Your task to perform on an android device: Show me productivity apps on the Play Store Image 0: 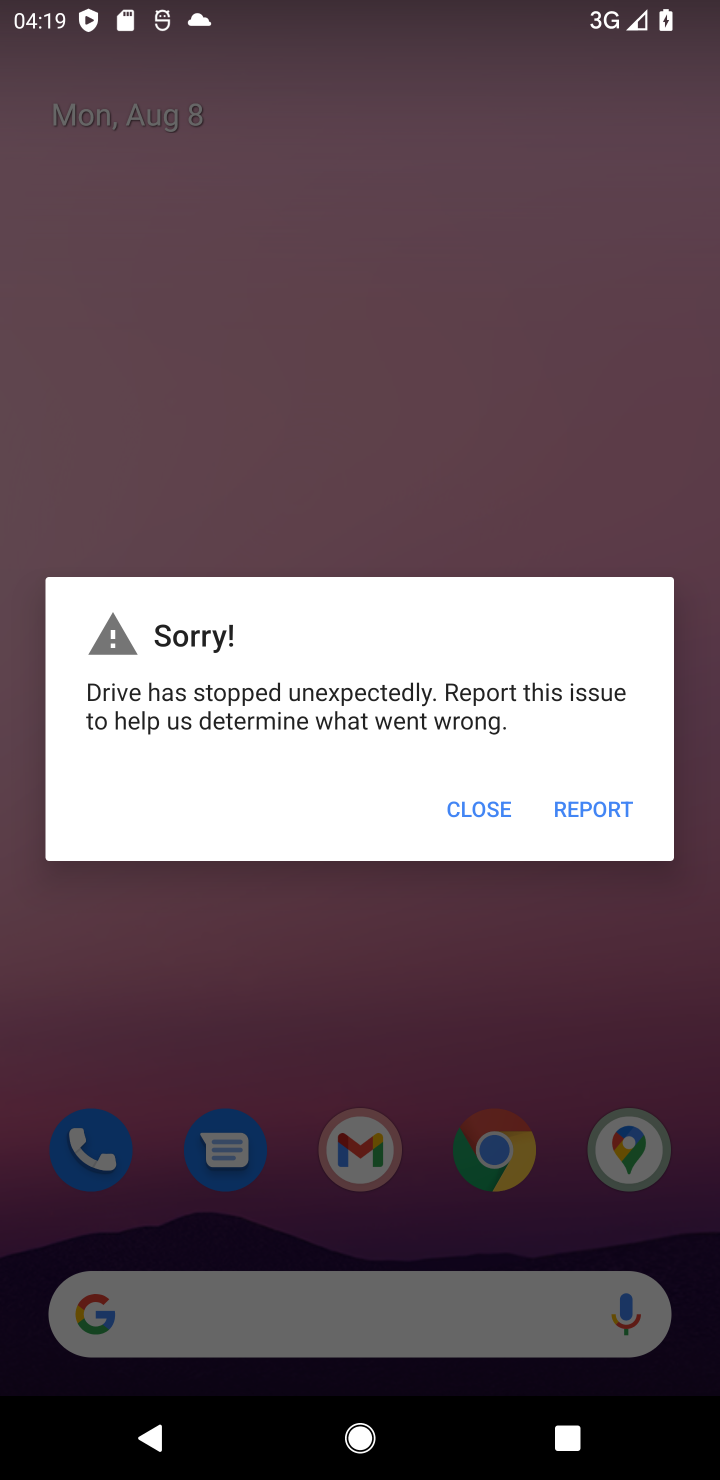
Step 0: press home button
Your task to perform on an android device: Show me productivity apps on the Play Store Image 1: 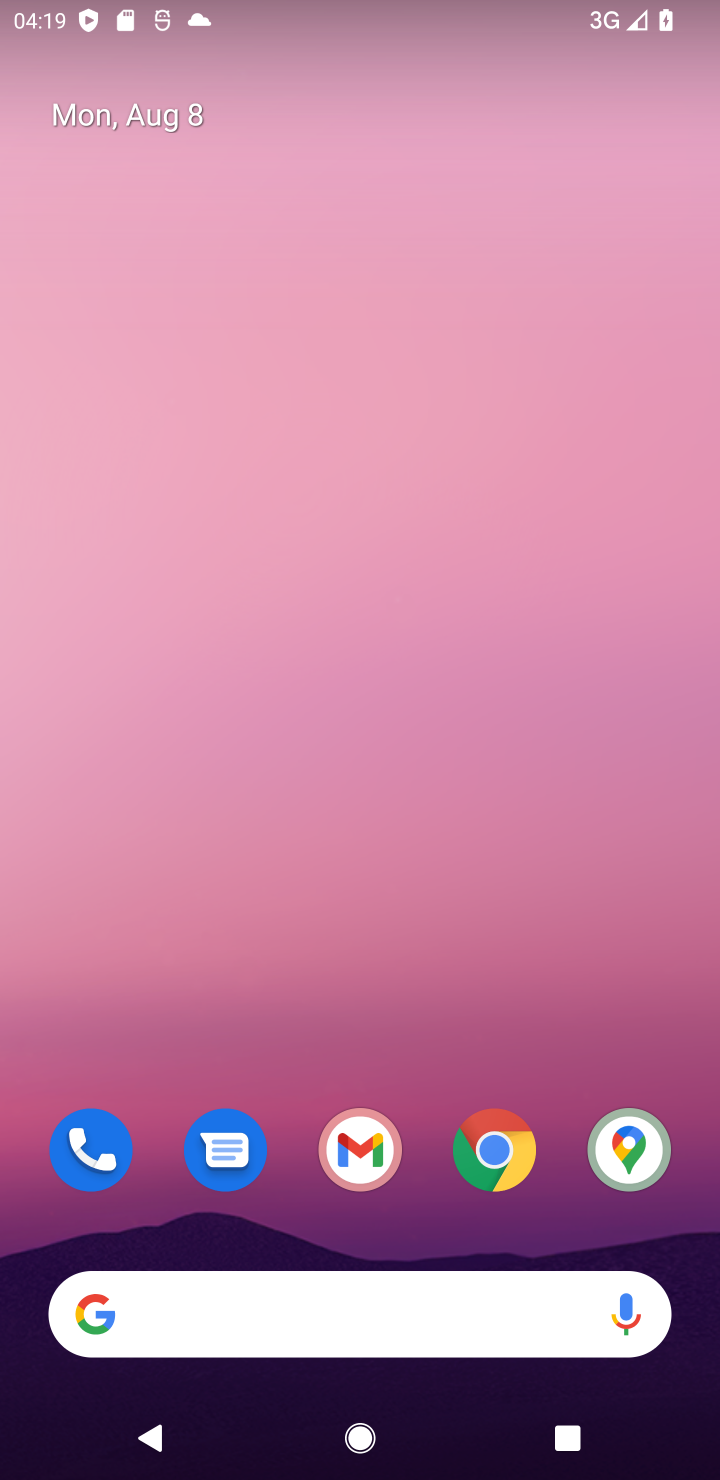
Step 1: click (294, 428)
Your task to perform on an android device: Show me productivity apps on the Play Store Image 2: 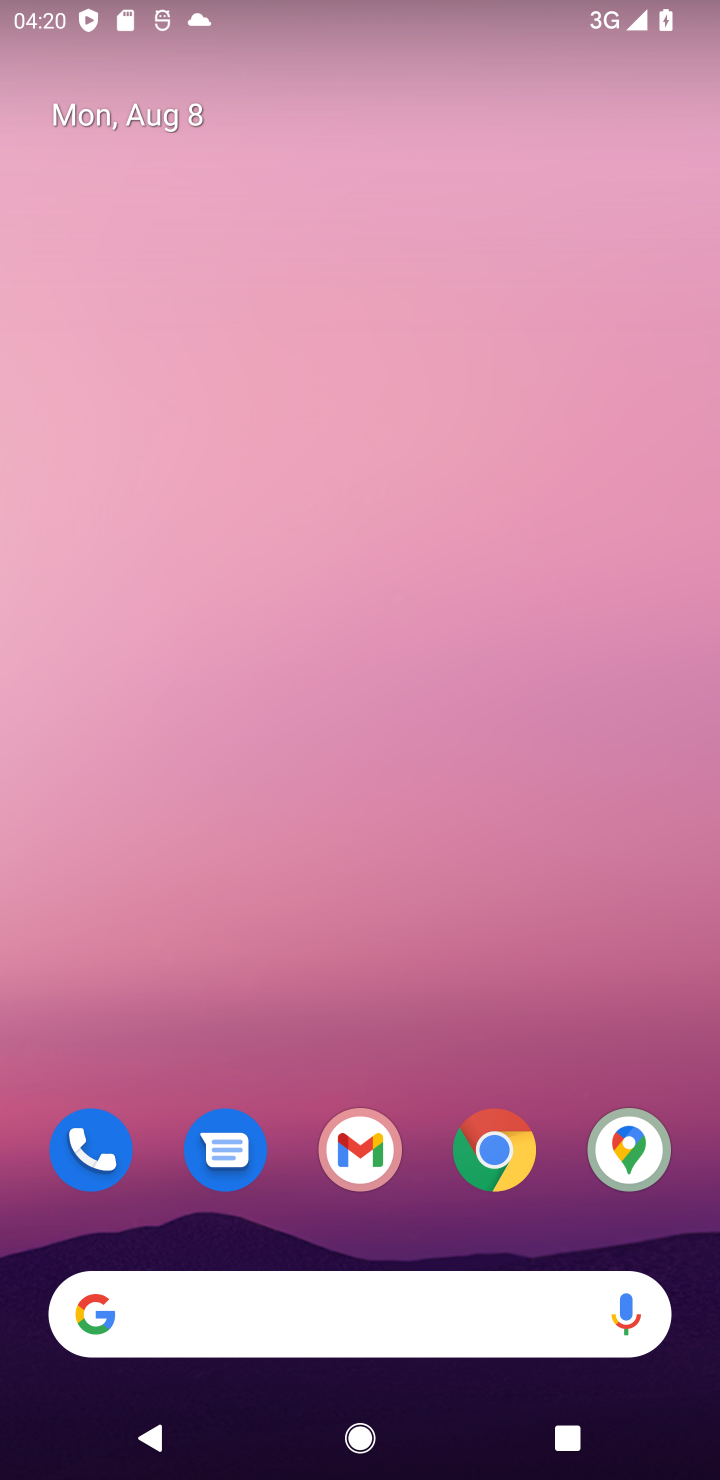
Step 2: task complete